Your task to perform on an android device: turn on the 12-hour format for clock Image 0: 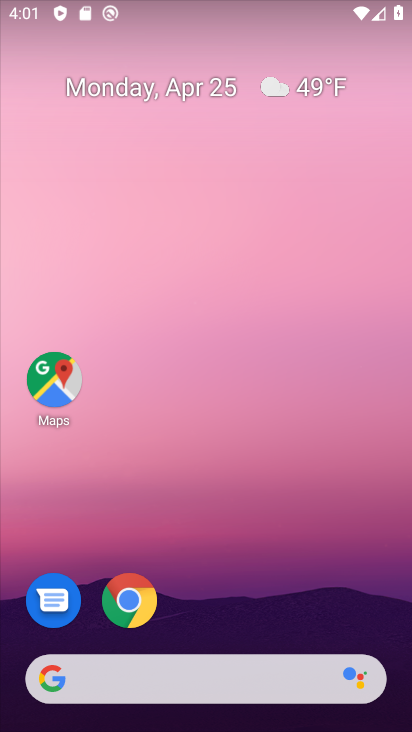
Step 0: drag from (289, 631) to (303, 1)
Your task to perform on an android device: turn on the 12-hour format for clock Image 1: 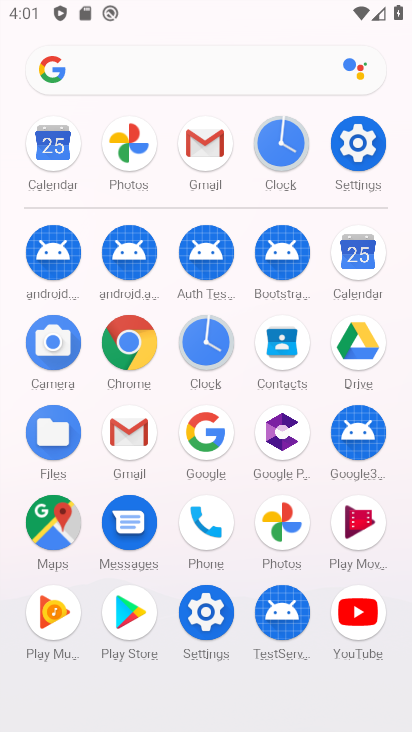
Step 1: click (280, 122)
Your task to perform on an android device: turn on the 12-hour format for clock Image 2: 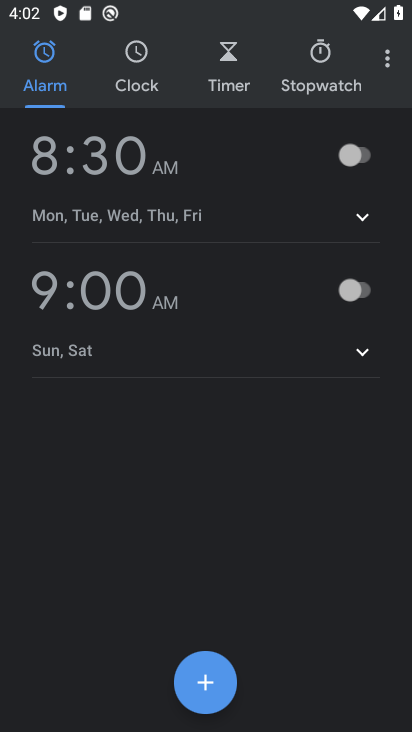
Step 2: click (382, 58)
Your task to perform on an android device: turn on the 12-hour format for clock Image 3: 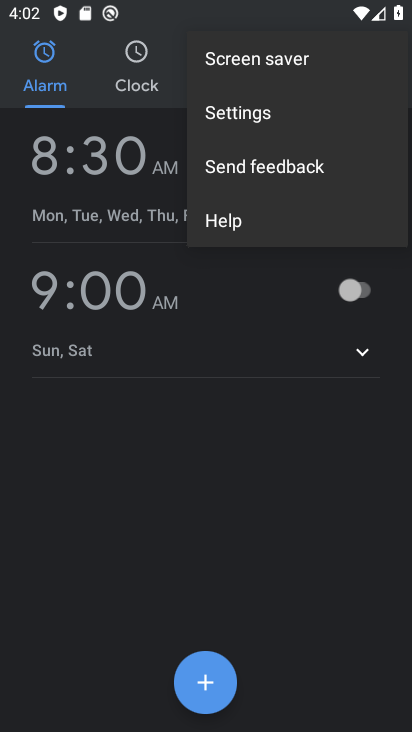
Step 3: click (314, 111)
Your task to perform on an android device: turn on the 12-hour format for clock Image 4: 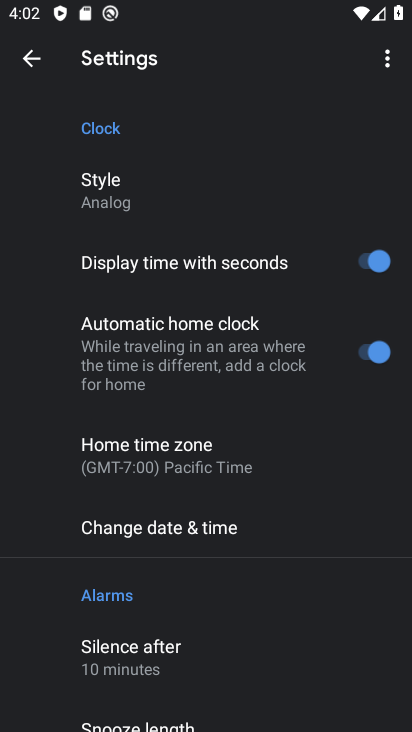
Step 4: click (333, 546)
Your task to perform on an android device: turn on the 12-hour format for clock Image 5: 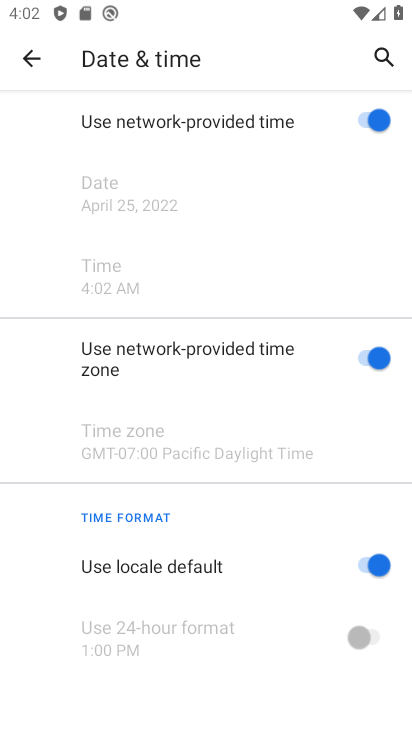
Step 5: task complete